Your task to perform on an android device: toggle priority inbox in the gmail app Image 0: 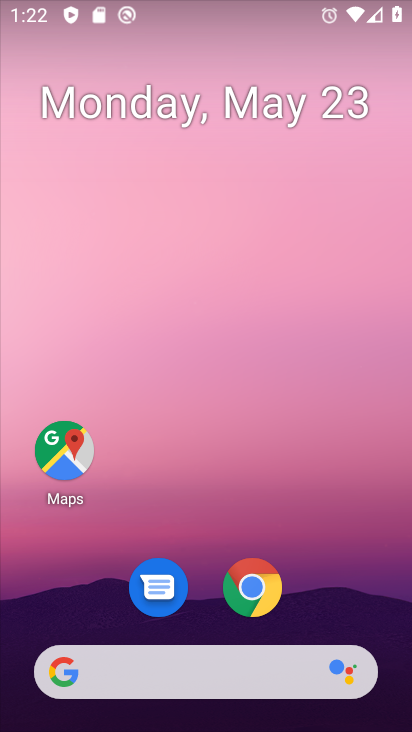
Step 0: drag from (353, 617) to (317, 192)
Your task to perform on an android device: toggle priority inbox in the gmail app Image 1: 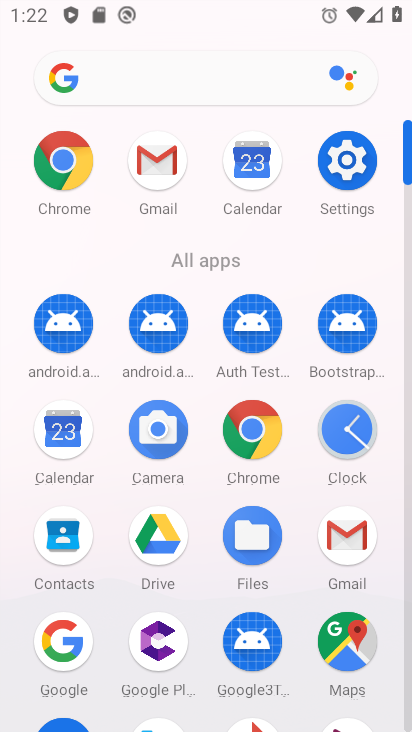
Step 1: click (170, 202)
Your task to perform on an android device: toggle priority inbox in the gmail app Image 2: 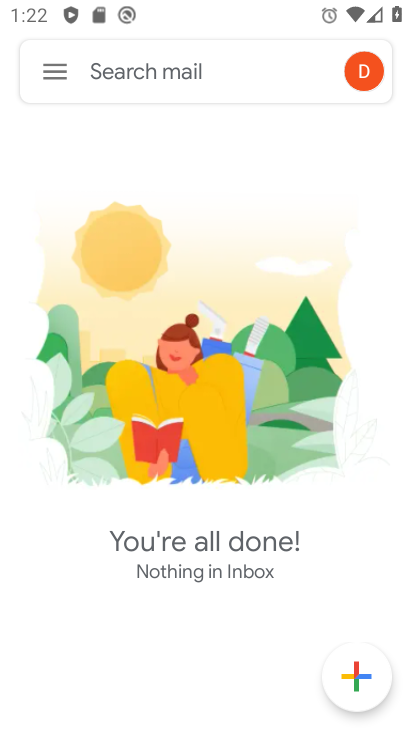
Step 2: click (58, 63)
Your task to perform on an android device: toggle priority inbox in the gmail app Image 3: 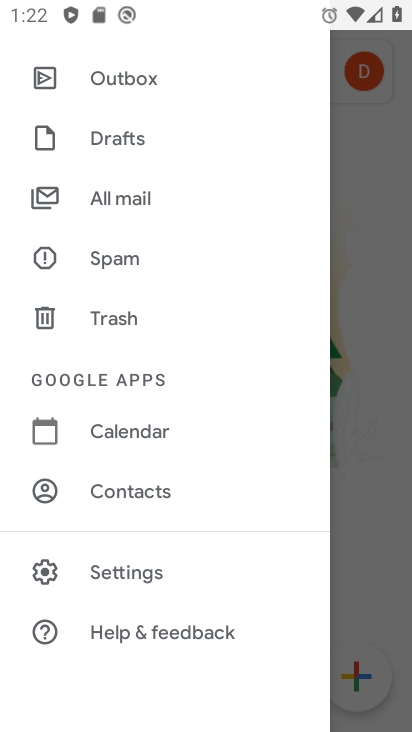
Step 3: click (171, 557)
Your task to perform on an android device: toggle priority inbox in the gmail app Image 4: 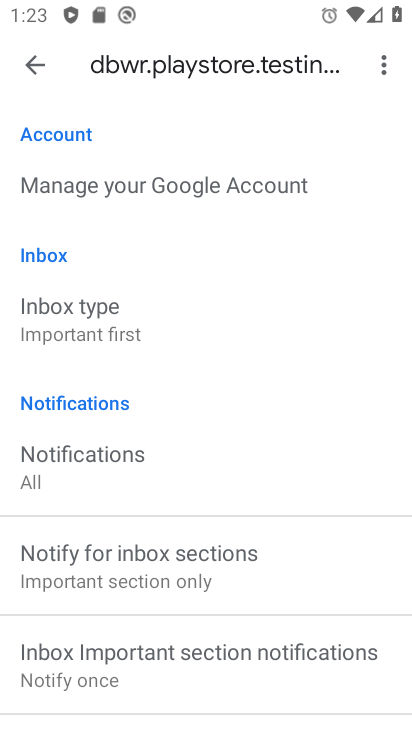
Step 4: task complete